Your task to perform on an android device: turn on javascript in the chrome app Image 0: 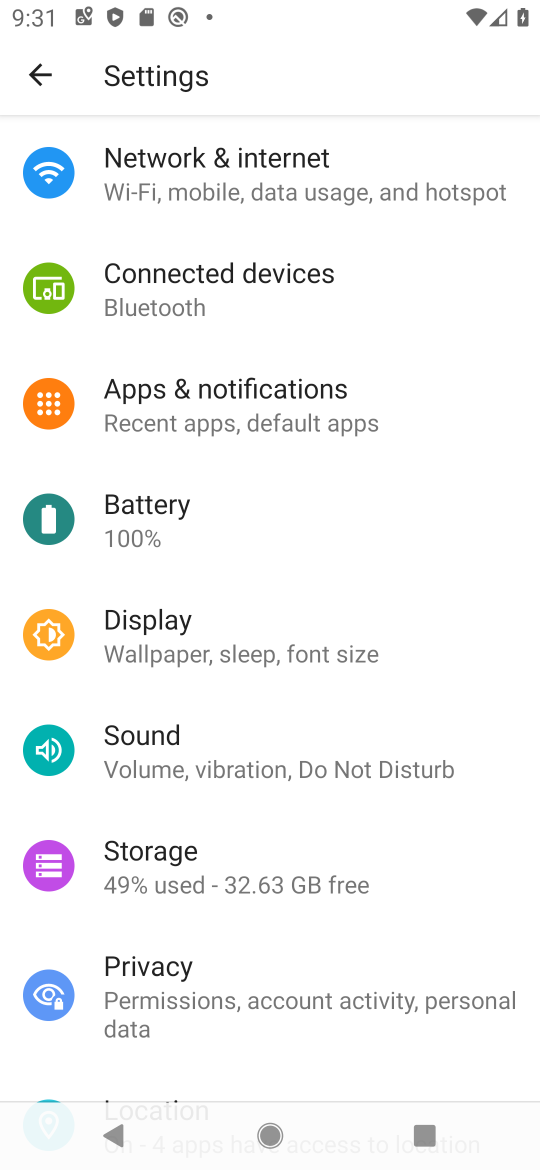
Step 0: press home button
Your task to perform on an android device: turn on javascript in the chrome app Image 1: 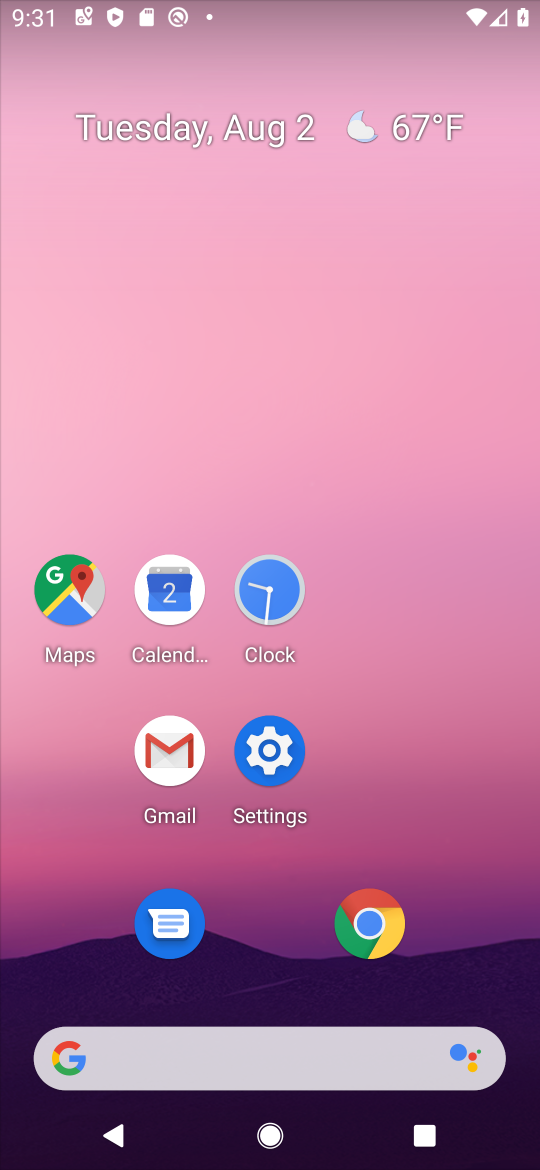
Step 1: click (351, 931)
Your task to perform on an android device: turn on javascript in the chrome app Image 2: 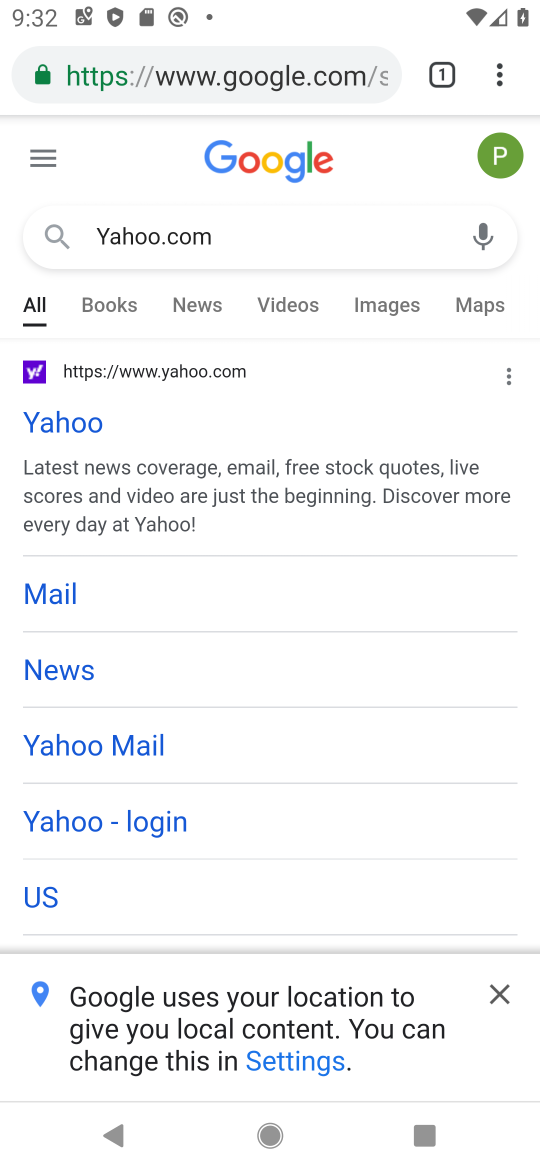
Step 2: click (503, 79)
Your task to perform on an android device: turn on javascript in the chrome app Image 3: 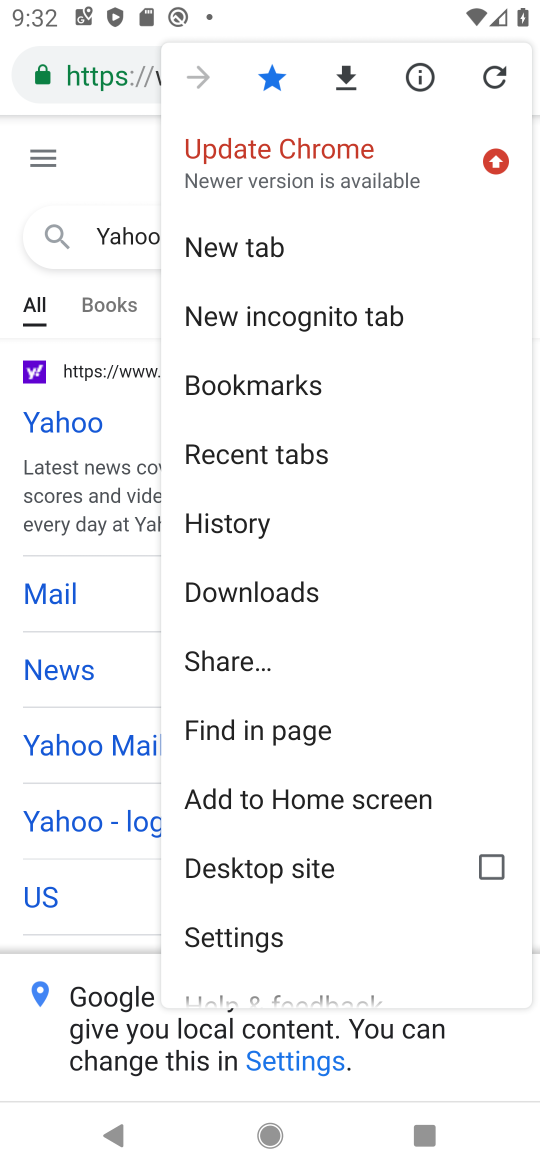
Step 3: click (243, 944)
Your task to perform on an android device: turn on javascript in the chrome app Image 4: 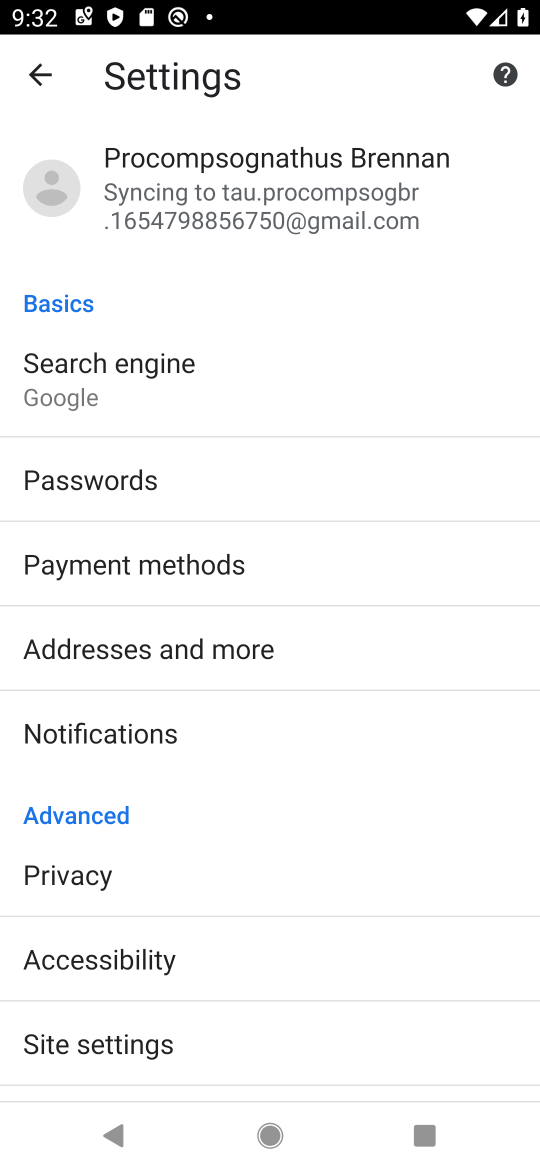
Step 4: click (113, 1043)
Your task to perform on an android device: turn on javascript in the chrome app Image 5: 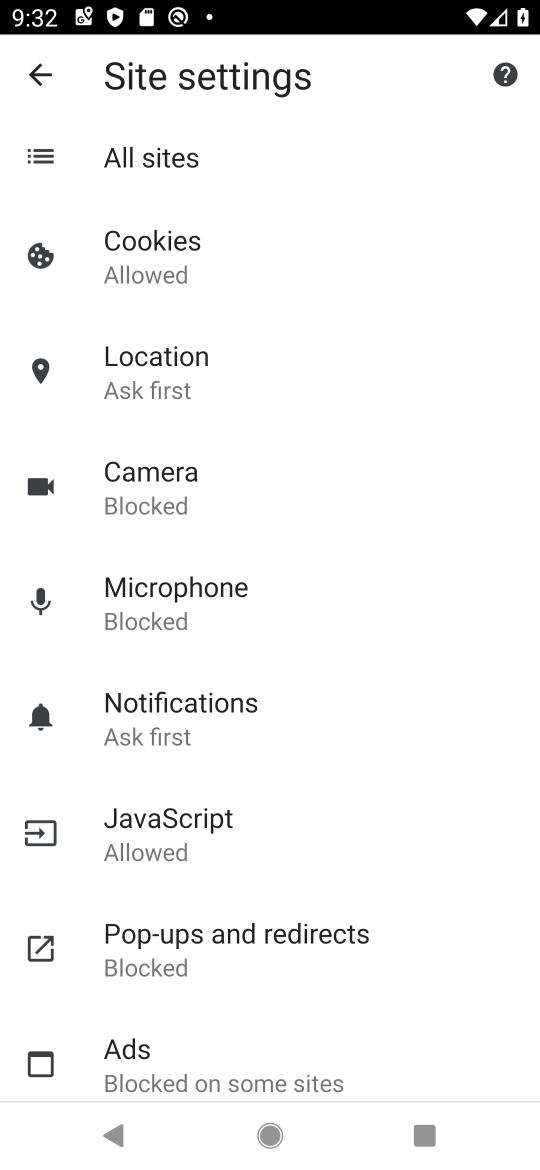
Step 5: click (159, 820)
Your task to perform on an android device: turn on javascript in the chrome app Image 6: 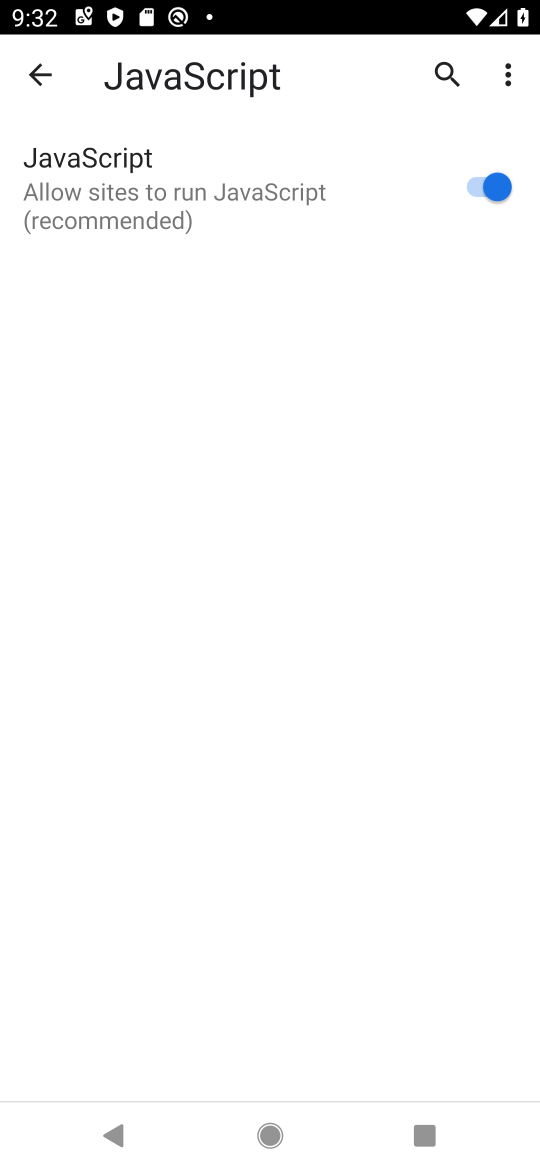
Step 6: task complete